Your task to perform on an android device: find photos in the google photos app Image 0: 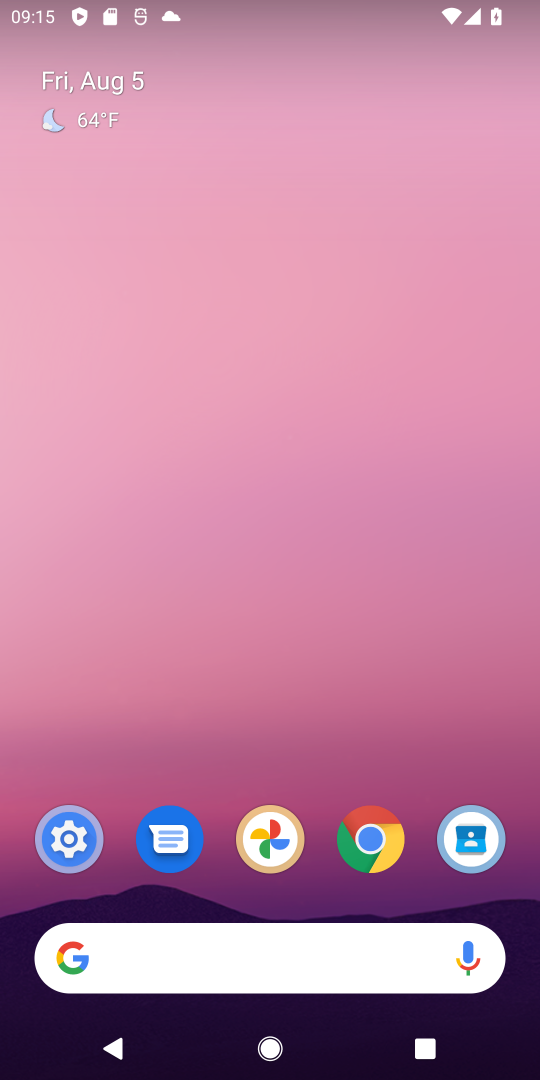
Step 0: drag from (312, 899) to (293, 201)
Your task to perform on an android device: find photos in the google photos app Image 1: 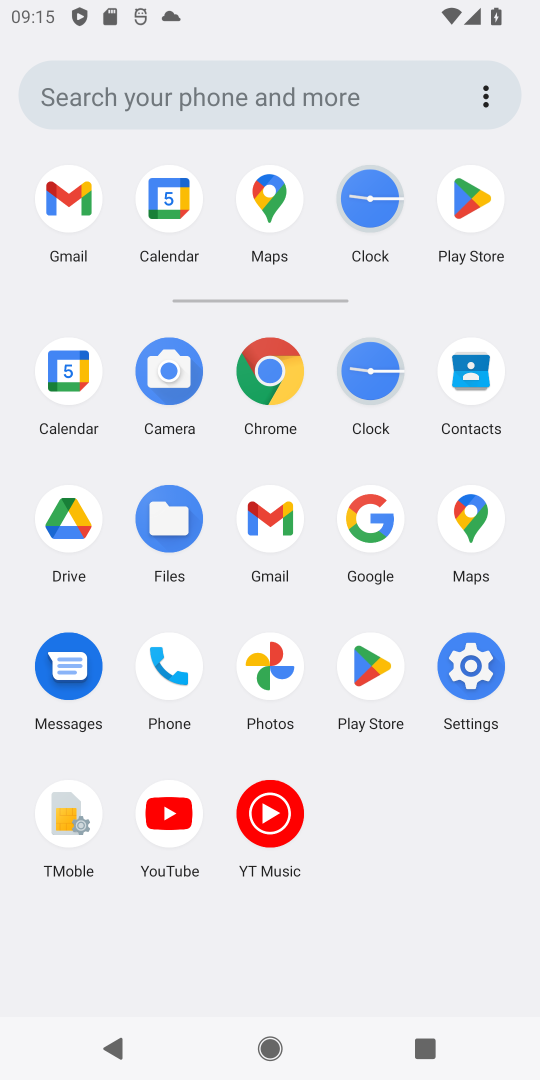
Step 1: click (262, 676)
Your task to perform on an android device: find photos in the google photos app Image 2: 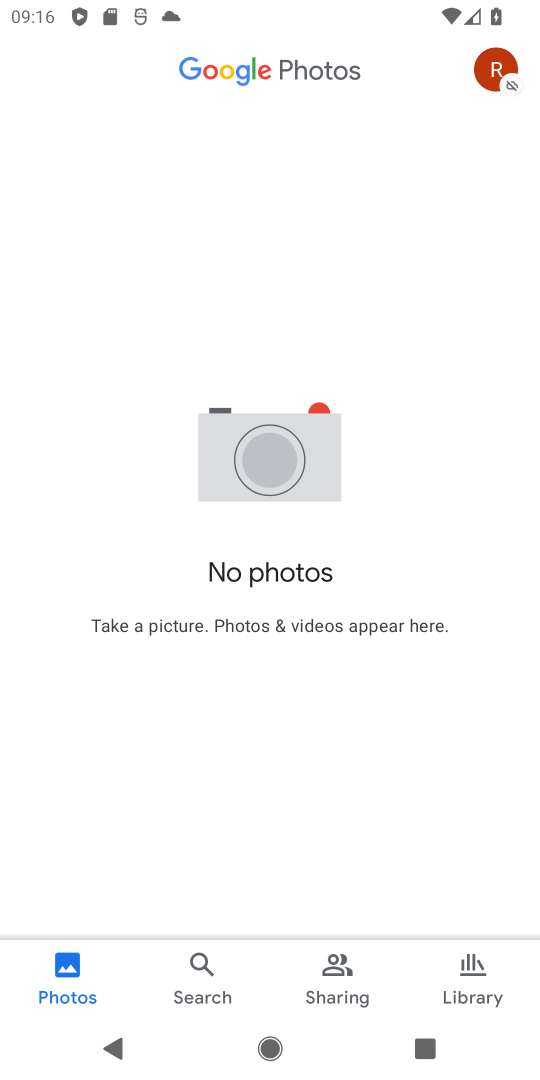
Step 2: task complete